Your task to perform on an android device: delete browsing data in the chrome app Image 0: 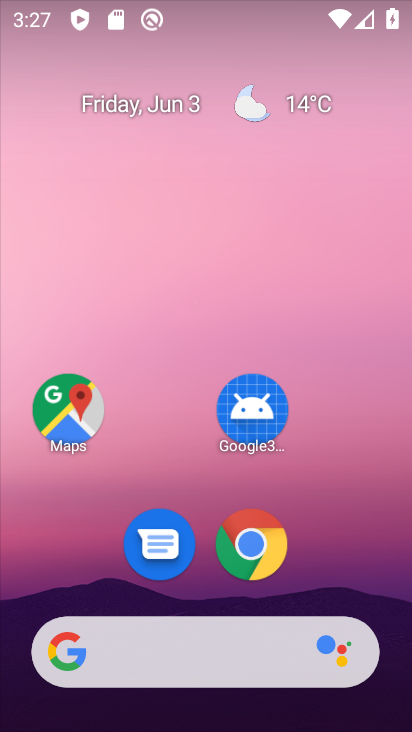
Step 0: click (255, 558)
Your task to perform on an android device: delete browsing data in the chrome app Image 1: 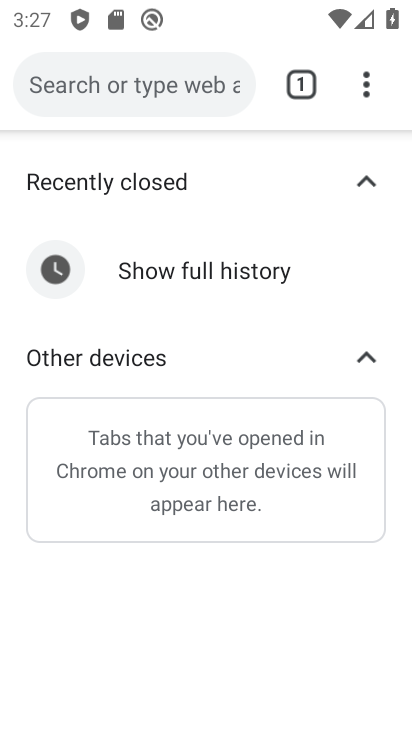
Step 1: drag from (380, 99) to (239, 608)
Your task to perform on an android device: delete browsing data in the chrome app Image 2: 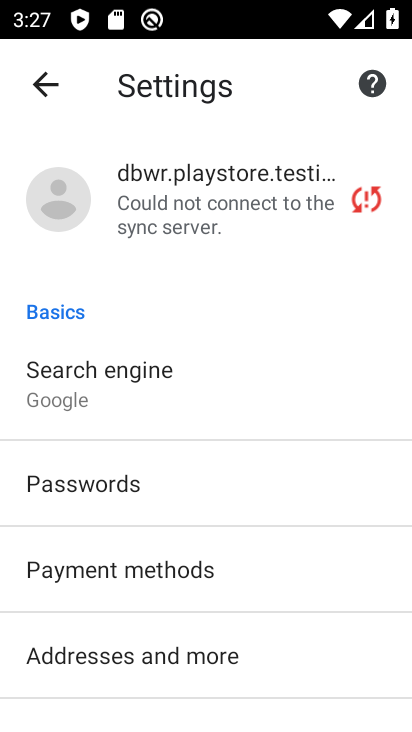
Step 2: drag from (218, 597) to (376, 231)
Your task to perform on an android device: delete browsing data in the chrome app Image 3: 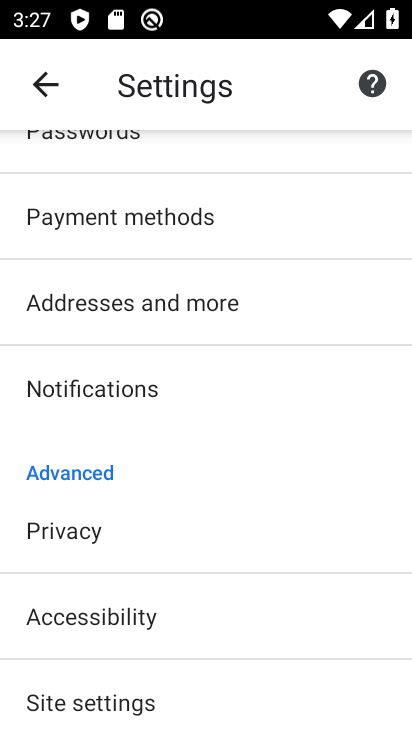
Step 3: click (178, 547)
Your task to perform on an android device: delete browsing data in the chrome app Image 4: 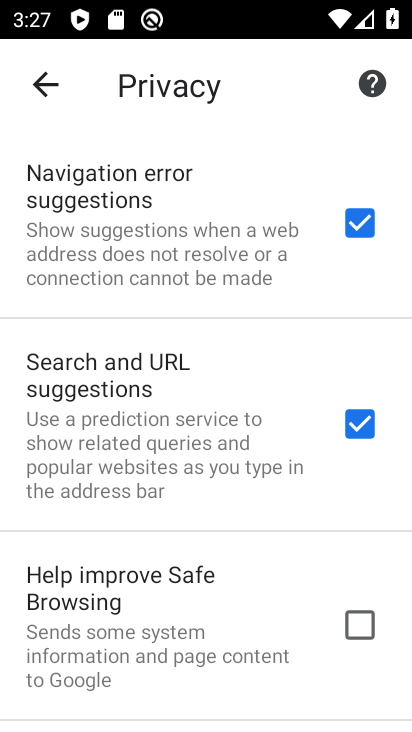
Step 4: drag from (89, 606) to (293, 85)
Your task to perform on an android device: delete browsing data in the chrome app Image 5: 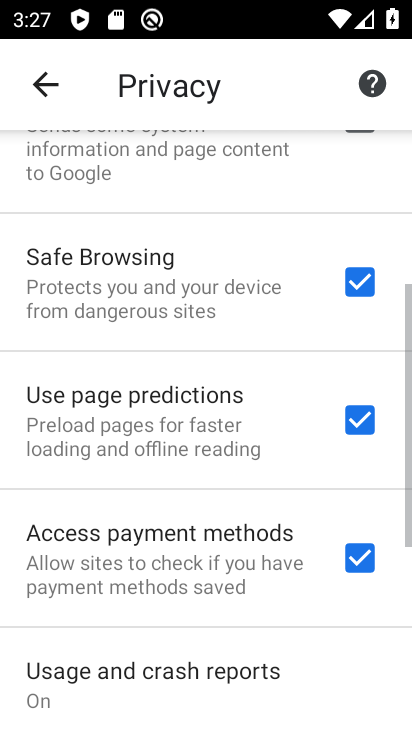
Step 5: drag from (153, 590) to (279, 62)
Your task to perform on an android device: delete browsing data in the chrome app Image 6: 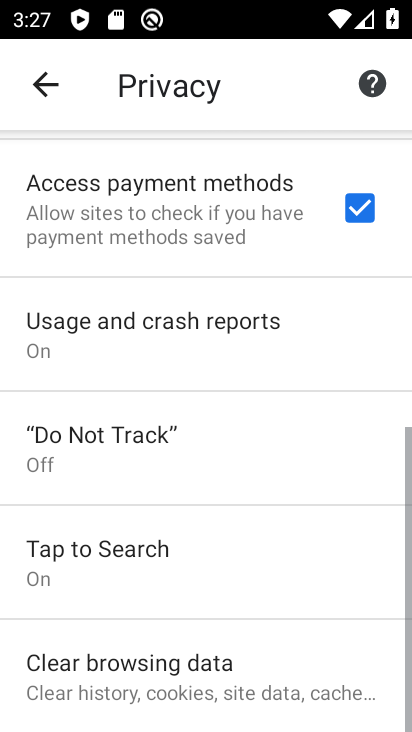
Step 6: click (170, 694)
Your task to perform on an android device: delete browsing data in the chrome app Image 7: 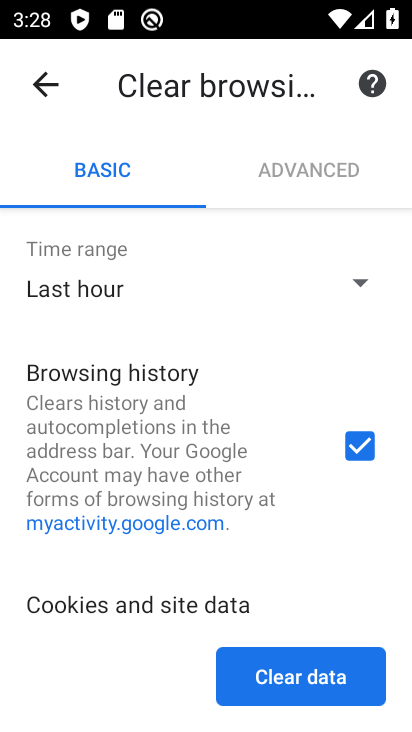
Step 7: drag from (150, 728) to (306, 191)
Your task to perform on an android device: delete browsing data in the chrome app Image 8: 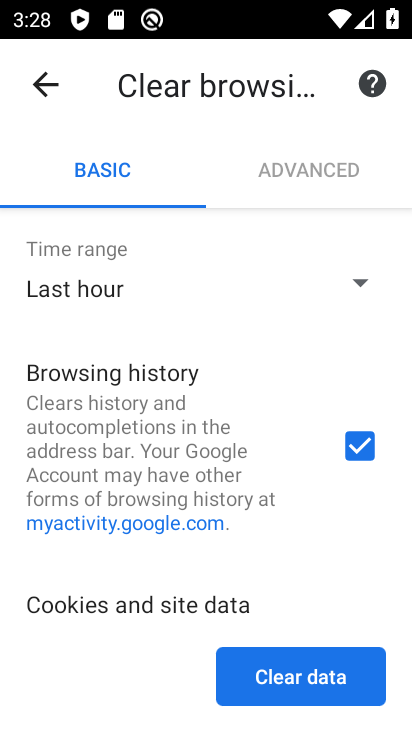
Step 8: drag from (123, 537) to (222, 161)
Your task to perform on an android device: delete browsing data in the chrome app Image 9: 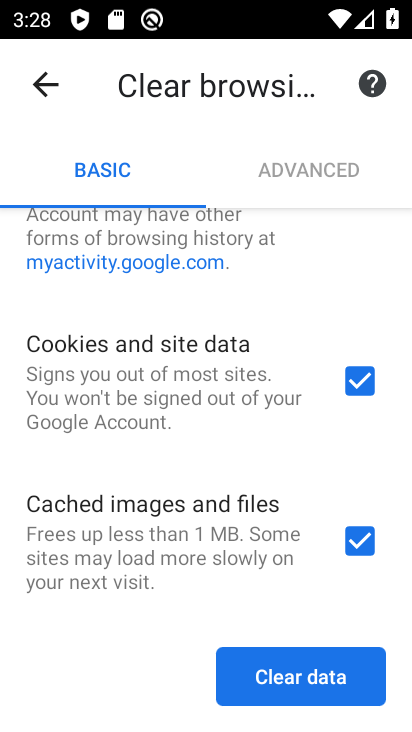
Step 9: click (274, 697)
Your task to perform on an android device: delete browsing data in the chrome app Image 10: 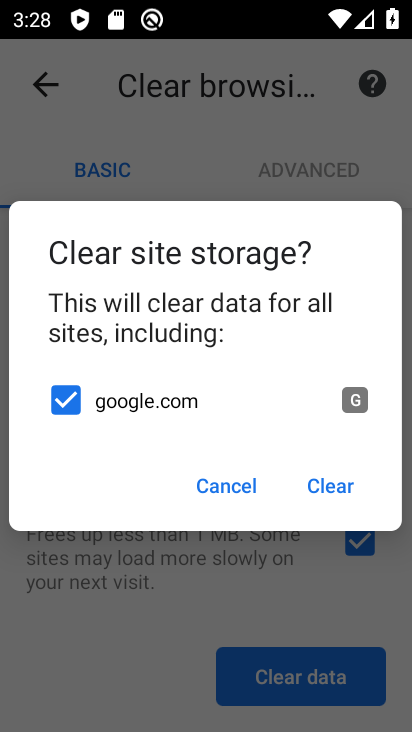
Step 10: click (318, 485)
Your task to perform on an android device: delete browsing data in the chrome app Image 11: 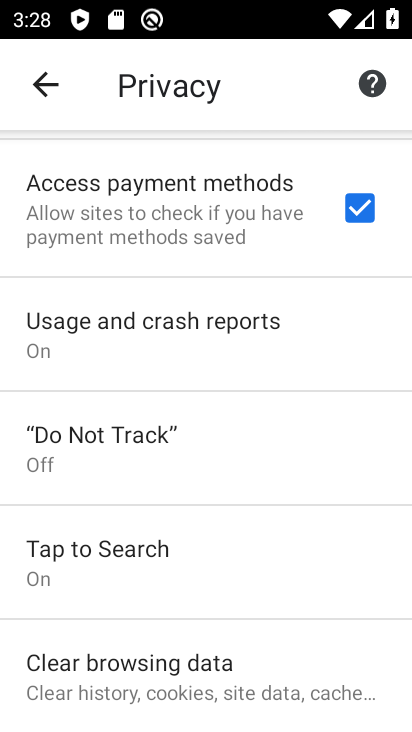
Step 11: task complete